Your task to perform on an android device: Open Yahoo.com Image 0: 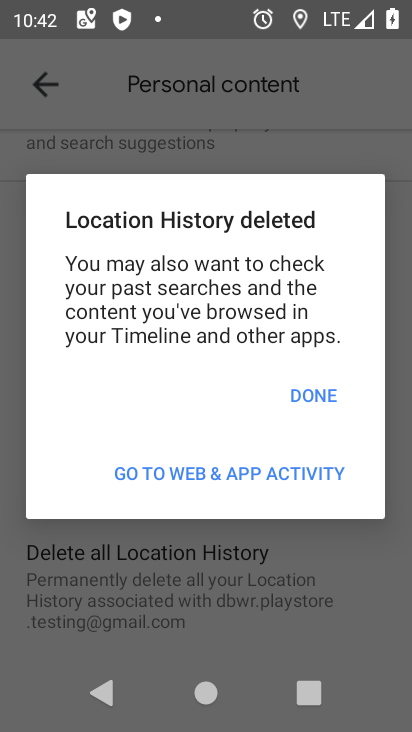
Step 0: press home button
Your task to perform on an android device: Open Yahoo.com Image 1: 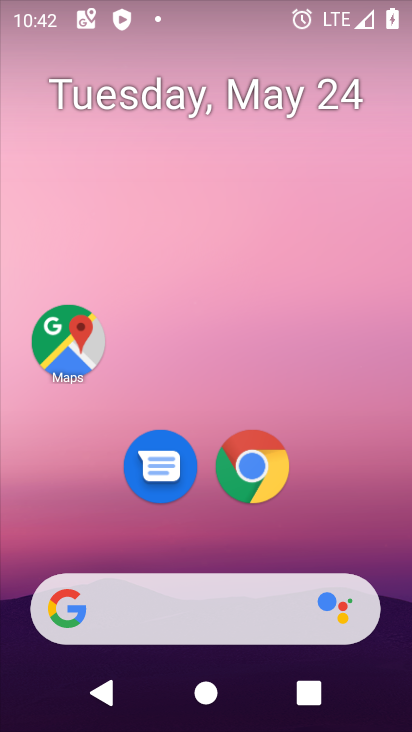
Step 1: drag from (373, 550) to (364, 235)
Your task to perform on an android device: Open Yahoo.com Image 2: 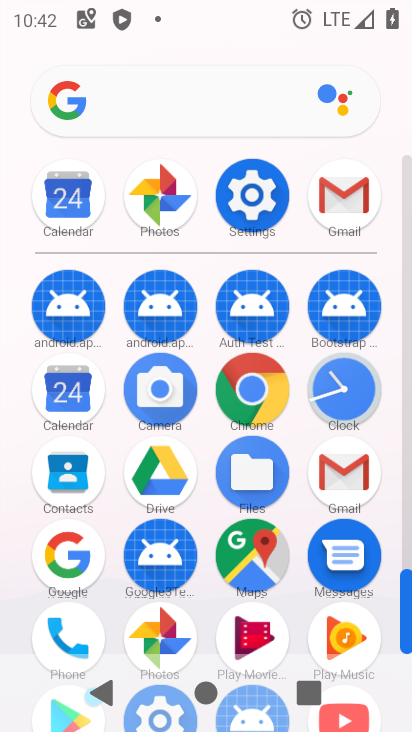
Step 2: click (260, 385)
Your task to perform on an android device: Open Yahoo.com Image 3: 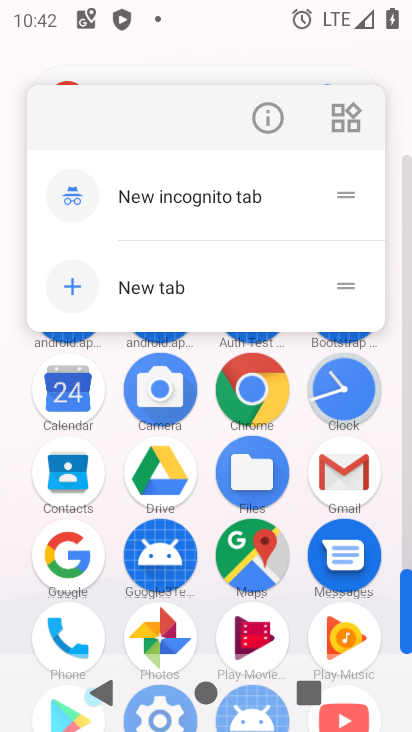
Step 3: click (260, 385)
Your task to perform on an android device: Open Yahoo.com Image 4: 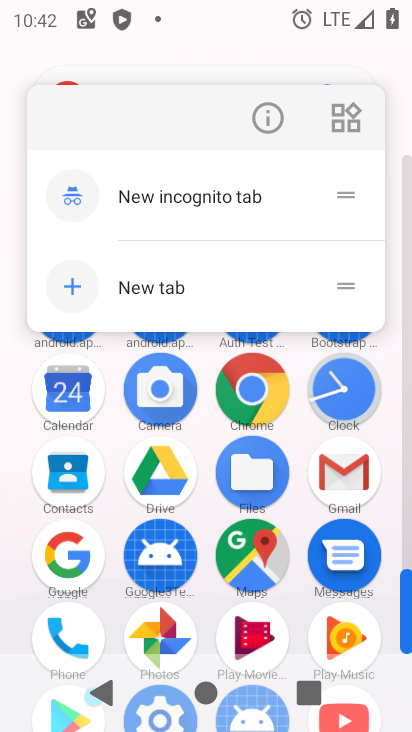
Step 4: click (260, 385)
Your task to perform on an android device: Open Yahoo.com Image 5: 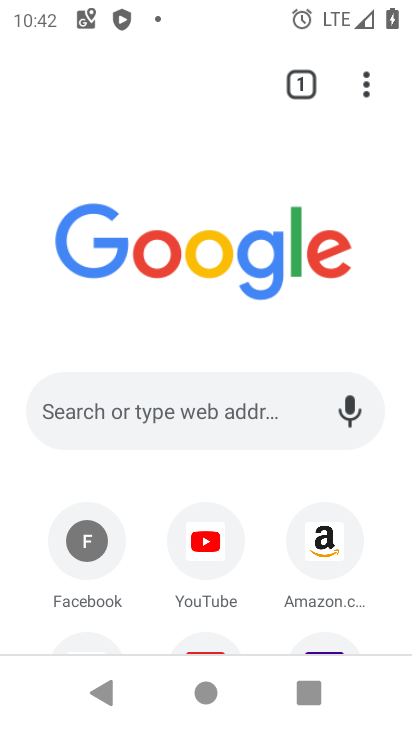
Step 5: drag from (394, 576) to (387, 421)
Your task to perform on an android device: Open Yahoo.com Image 6: 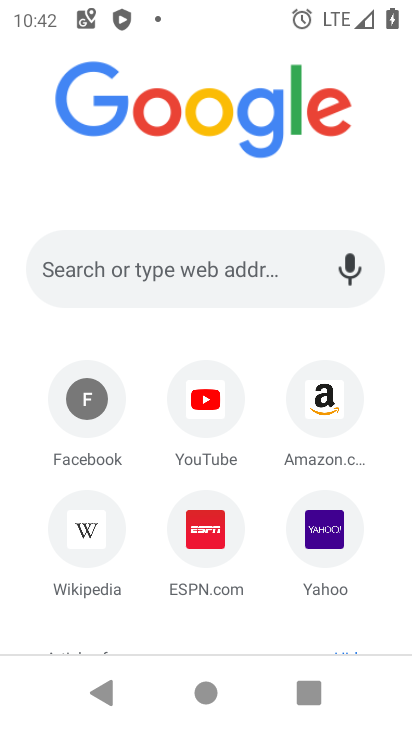
Step 6: click (322, 535)
Your task to perform on an android device: Open Yahoo.com Image 7: 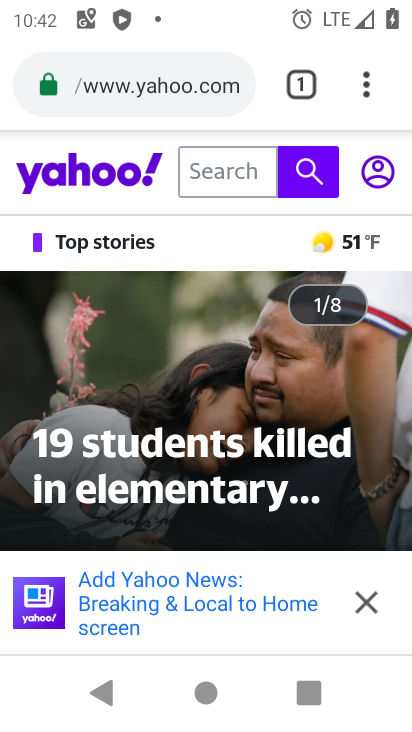
Step 7: task complete